Your task to perform on an android device: Open Google Chrome and click the shortcut for Amazon.com Image 0: 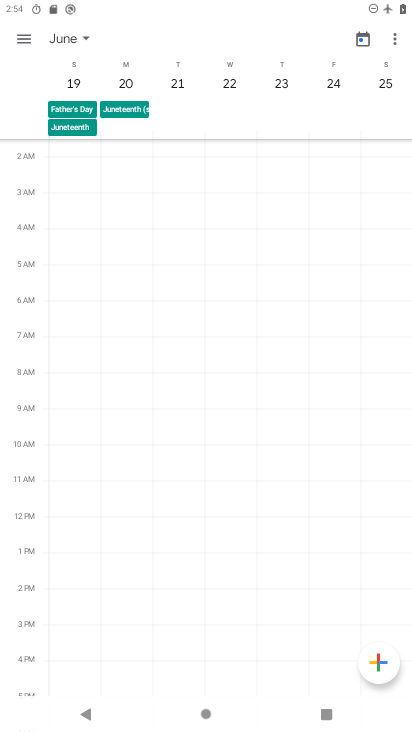
Step 0: press home button
Your task to perform on an android device: Open Google Chrome and click the shortcut for Amazon.com Image 1: 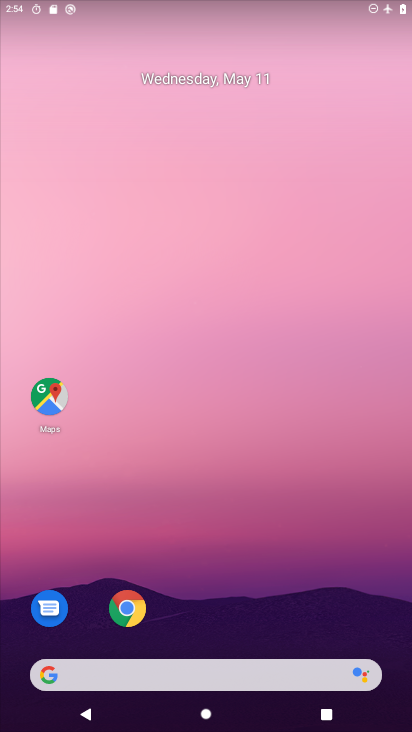
Step 1: click (122, 601)
Your task to perform on an android device: Open Google Chrome and click the shortcut for Amazon.com Image 2: 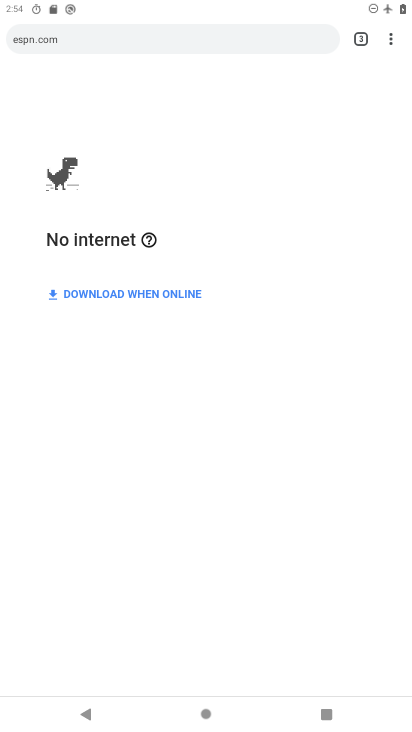
Step 2: drag from (347, 3) to (350, 434)
Your task to perform on an android device: Open Google Chrome and click the shortcut for Amazon.com Image 3: 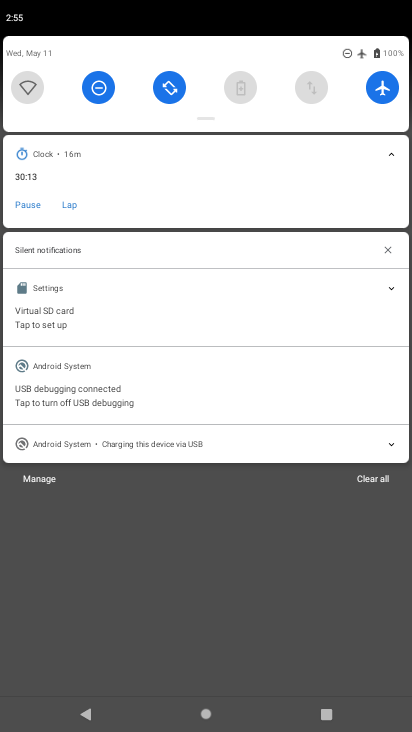
Step 3: click (383, 79)
Your task to perform on an android device: Open Google Chrome and click the shortcut for Amazon.com Image 4: 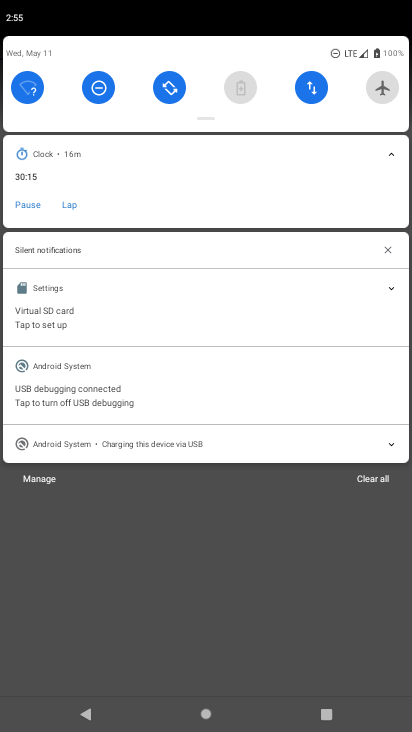
Step 4: drag from (296, 426) to (296, 350)
Your task to perform on an android device: Open Google Chrome and click the shortcut for Amazon.com Image 5: 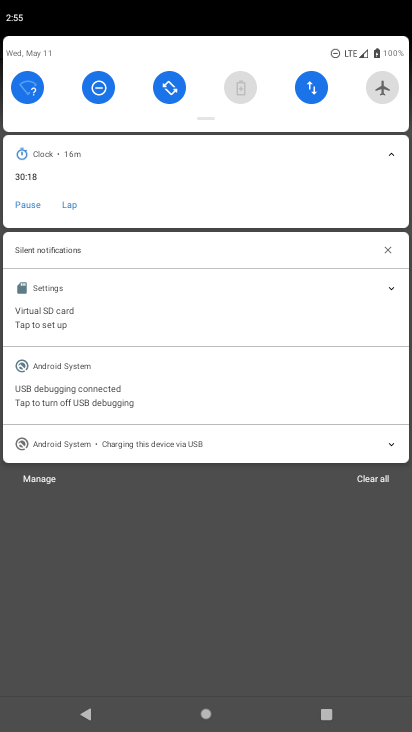
Step 5: click (314, 214)
Your task to perform on an android device: Open Google Chrome and click the shortcut for Amazon.com Image 6: 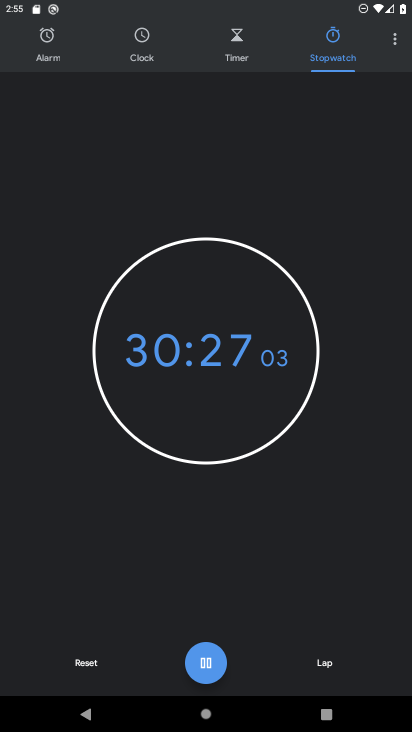
Step 6: press home button
Your task to perform on an android device: Open Google Chrome and click the shortcut for Amazon.com Image 7: 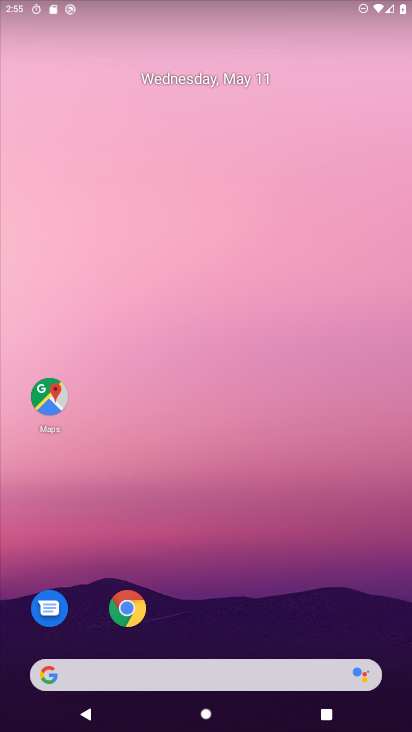
Step 7: drag from (199, 585) to (207, 506)
Your task to perform on an android device: Open Google Chrome and click the shortcut for Amazon.com Image 8: 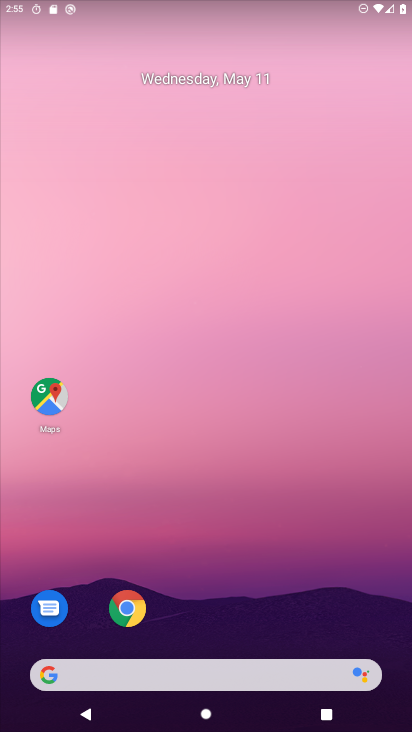
Step 8: click (127, 608)
Your task to perform on an android device: Open Google Chrome and click the shortcut for Amazon.com Image 9: 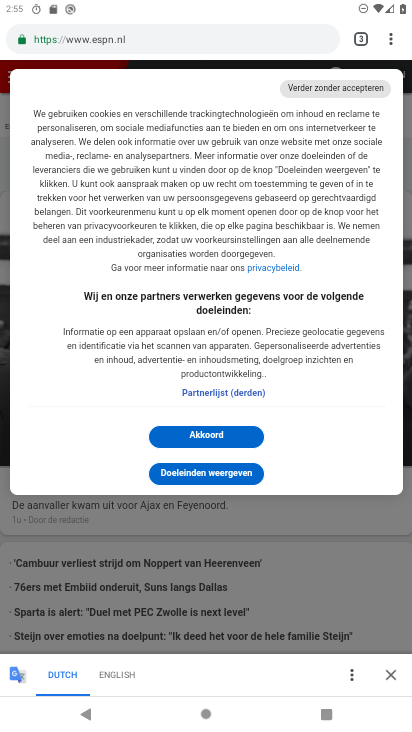
Step 9: click (356, 31)
Your task to perform on an android device: Open Google Chrome and click the shortcut for Amazon.com Image 10: 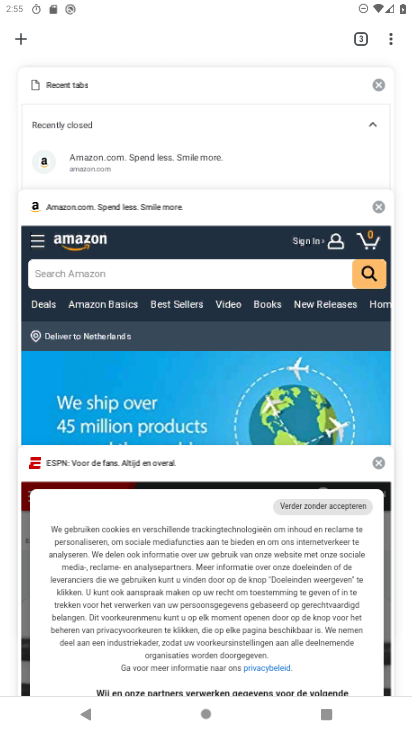
Step 10: click (375, 207)
Your task to perform on an android device: Open Google Chrome and click the shortcut for Amazon.com Image 11: 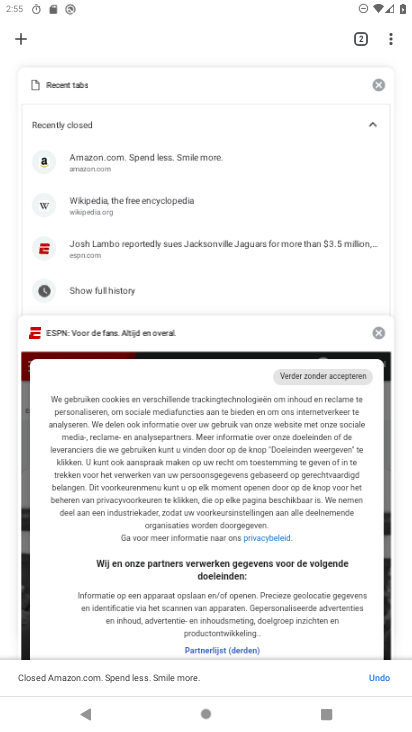
Step 11: click (378, 88)
Your task to perform on an android device: Open Google Chrome and click the shortcut for Amazon.com Image 12: 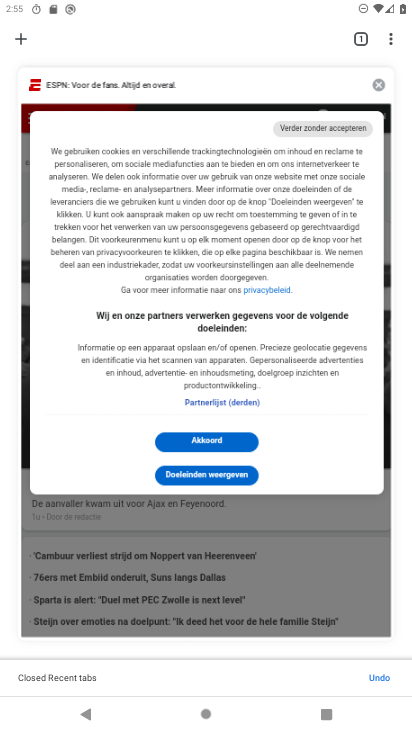
Step 12: click (379, 89)
Your task to perform on an android device: Open Google Chrome and click the shortcut for Amazon.com Image 13: 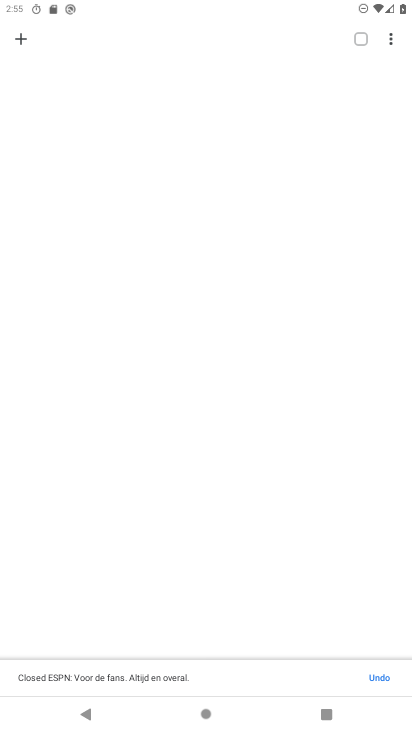
Step 13: click (24, 38)
Your task to perform on an android device: Open Google Chrome and click the shortcut for Amazon.com Image 14: 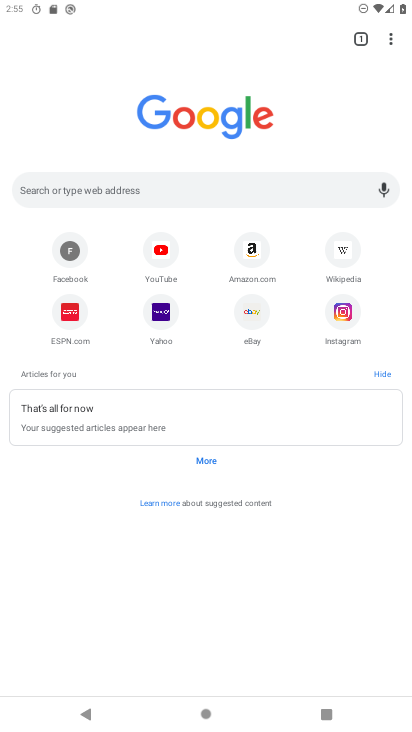
Step 14: click (248, 256)
Your task to perform on an android device: Open Google Chrome and click the shortcut for Amazon.com Image 15: 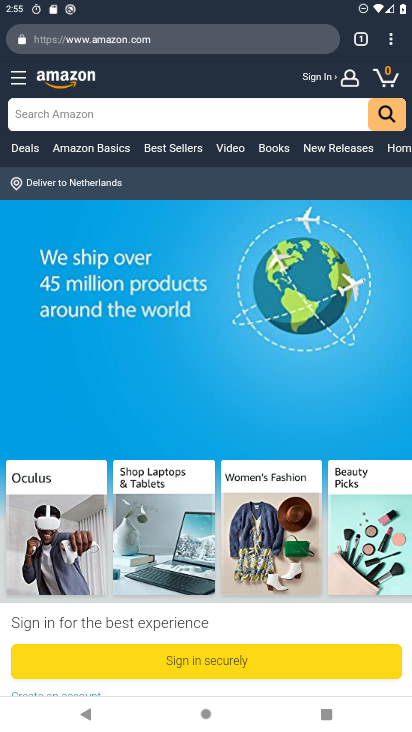
Step 15: task complete